Your task to perform on an android device: Open settings Image 0: 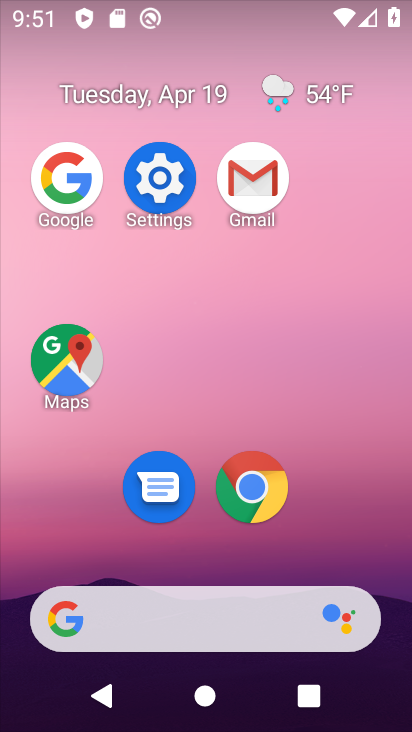
Step 0: click (171, 157)
Your task to perform on an android device: Open settings Image 1: 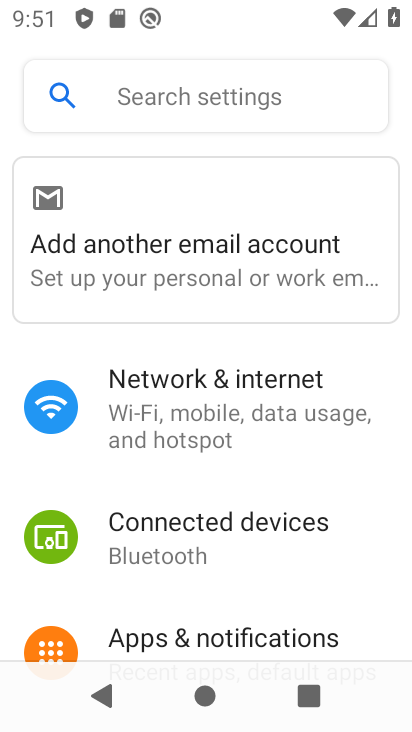
Step 1: task complete